Your task to perform on an android device: add a contact in the contacts app Image 0: 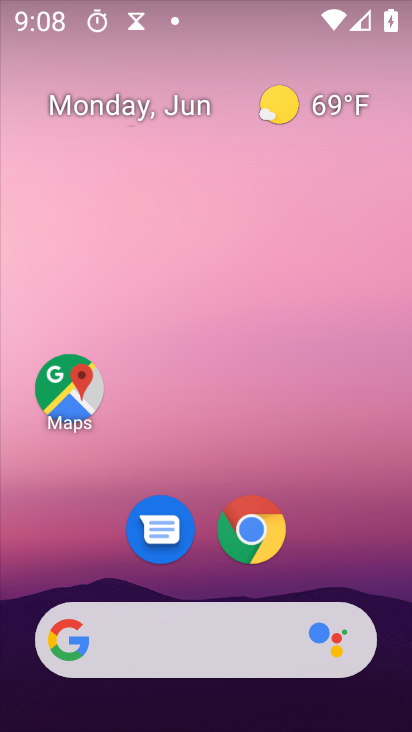
Step 0: drag from (331, 524) to (318, 10)
Your task to perform on an android device: add a contact in the contacts app Image 1: 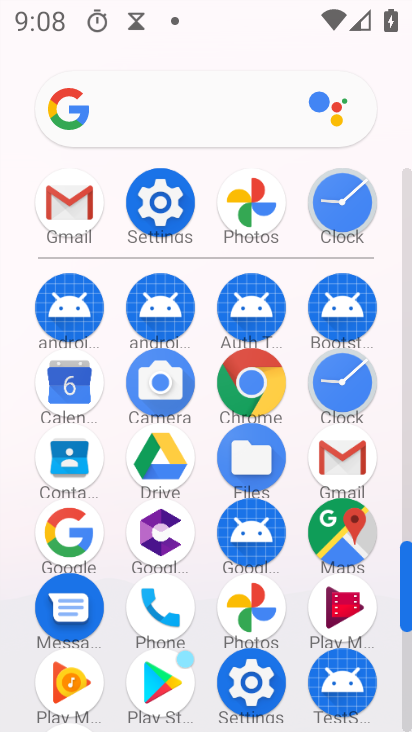
Step 1: click (55, 462)
Your task to perform on an android device: add a contact in the contacts app Image 2: 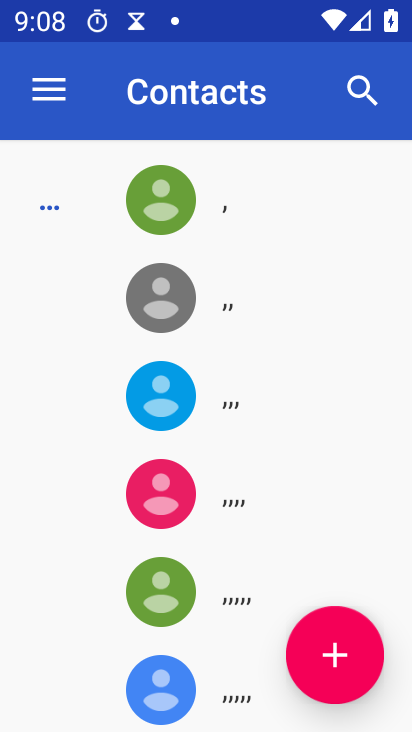
Step 2: click (335, 652)
Your task to perform on an android device: add a contact in the contacts app Image 3: 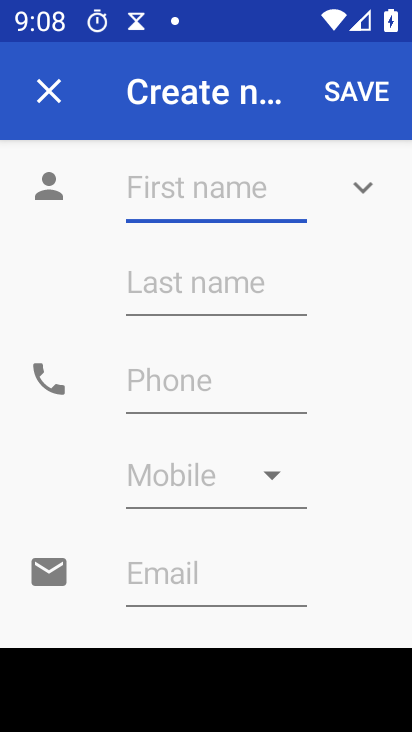
Step 3: type "ssd"
Your task to perform on an android device: add a contact in the contacts app Image 4: 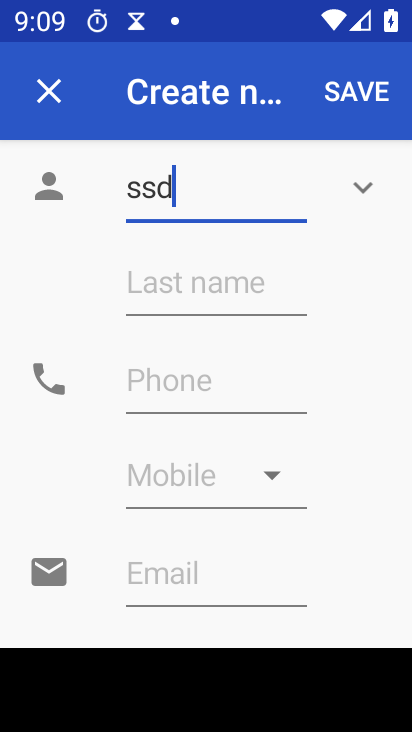
Step 4: click (186, 389)
Your task to perform on an android device: add a contact in the contacts app Image 5: 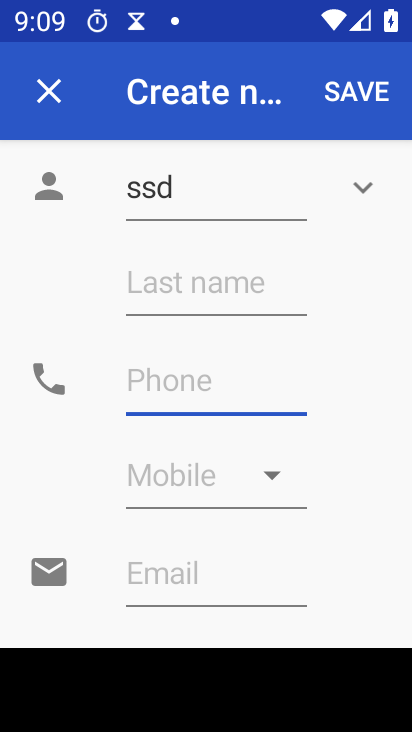
Step 5: click (186, 389)
Your task to perform on an android device: add a contact in the contacts app Image 6: 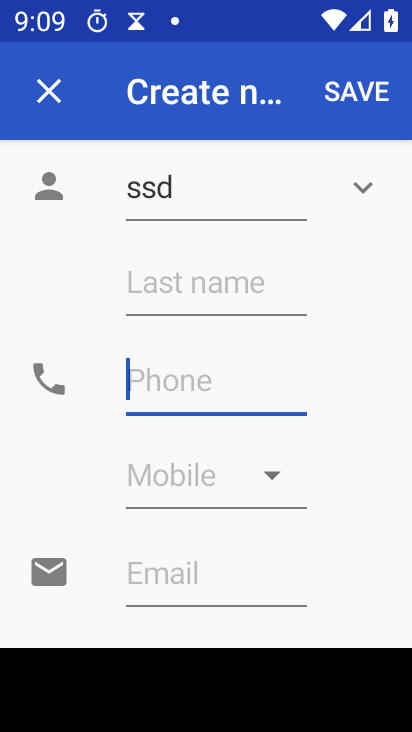
Step 6: type "90356700"
Your task to perform on an android device: add a contact in the contacts app Image 7: 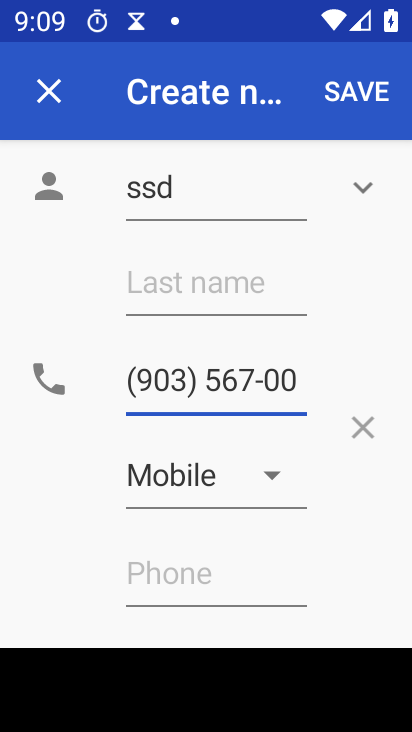
Step 7: click (371, 81)
Your task to perform on an android device: add a contact in the contacts app Image 8: 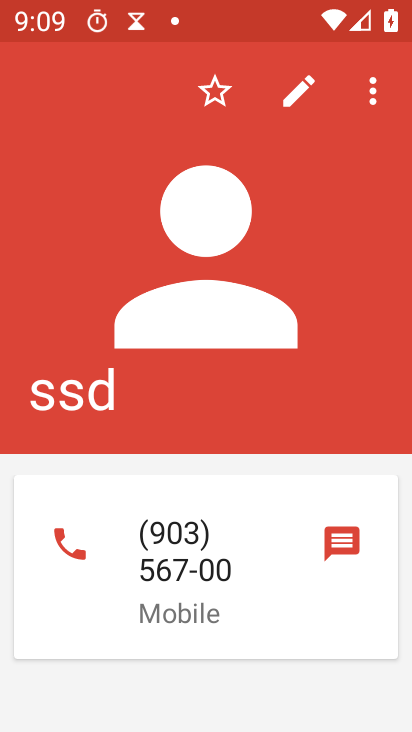
Step 8: task complete